Your task to perform on an android device: toggle priority inbox in the gmail app Image 0: 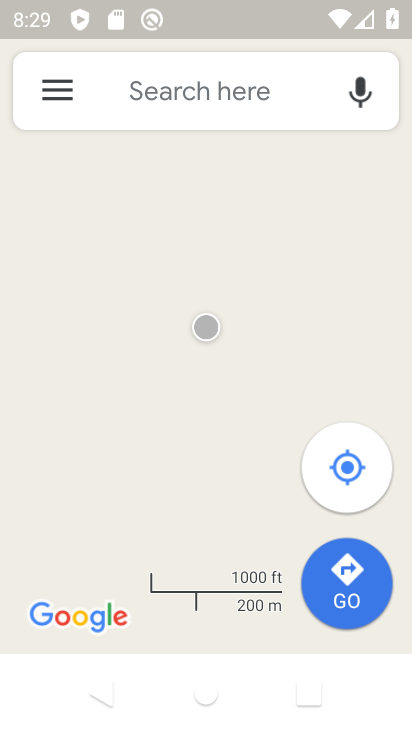
Step 0: press home button
Your task to perform on an android device: toggle priority inbox in the gmail app Image 1: 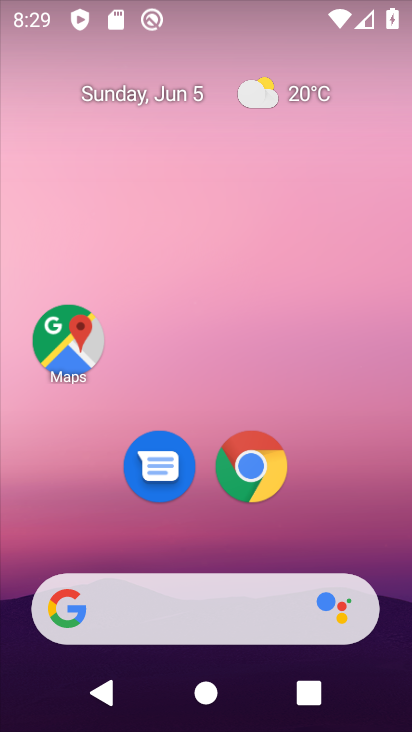
Step 1: drag from (206, 527) to (190, 122)
Your task to perform on an android device: toggle priority inbox in the gmail app Image 2: 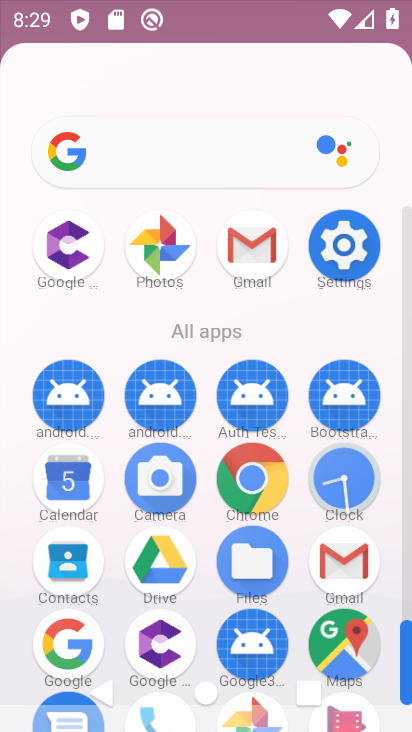
Step 2: click (250, 261)
Your task to perform on an android device: toggle priority inbox in the gmail app Image 3: 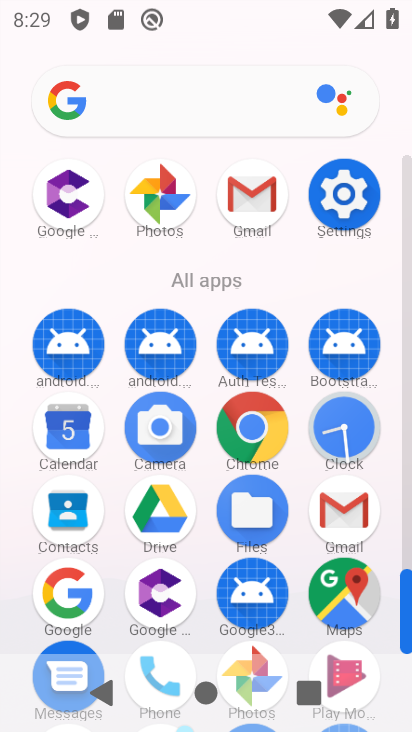
Step 3: click (256, 221)
Your task to perform on an android device: toggle priority inbox in the gmail app Image 4: 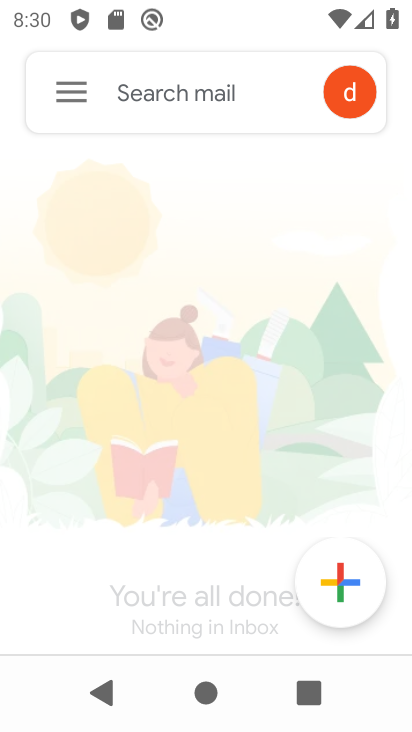
Step 4: click (67, 82)
Your task to perform on an android device: toggle priority inbox in the gmail app Image 5: 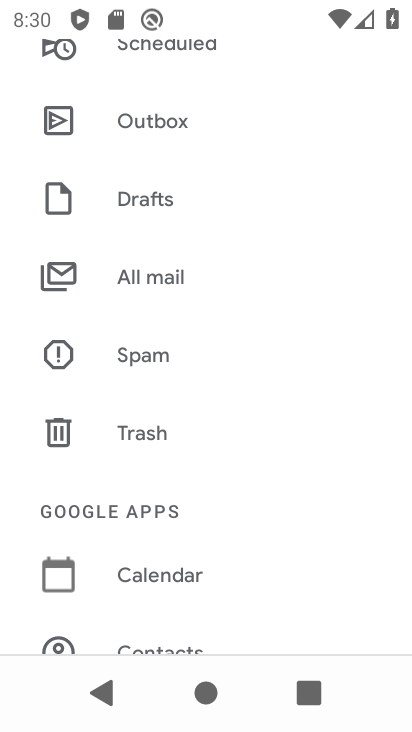
Step 5: drag from (186, 510) to (201, 178)
Your task to perform on an android device: toggle priority inbox in the gmail app Image 6: 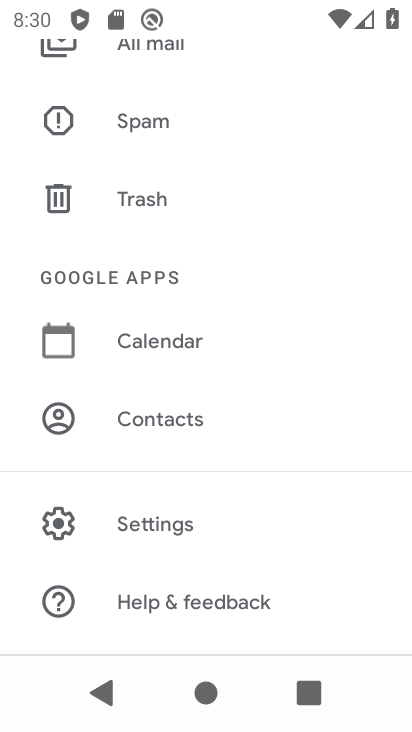
Step 6: click (133, 524)
Your task to perform on an android device: toggle priority inbox in the gmail app Image 7: 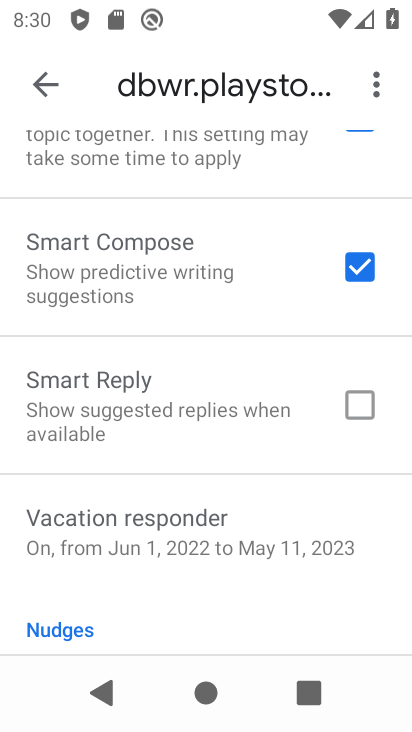
Step 7: drag from (237, 208) to (257, 638)
Your task to perform on an android device: toggle priority inbox in the gmail app Image 8: 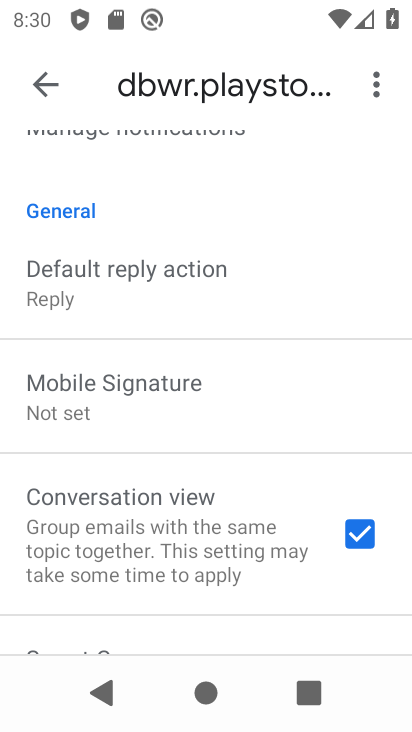
Step 8: drag from (168, 233) to (183, 563)
Your task to perform on an android device: toggle priority inbox in the gmail app Image 9: 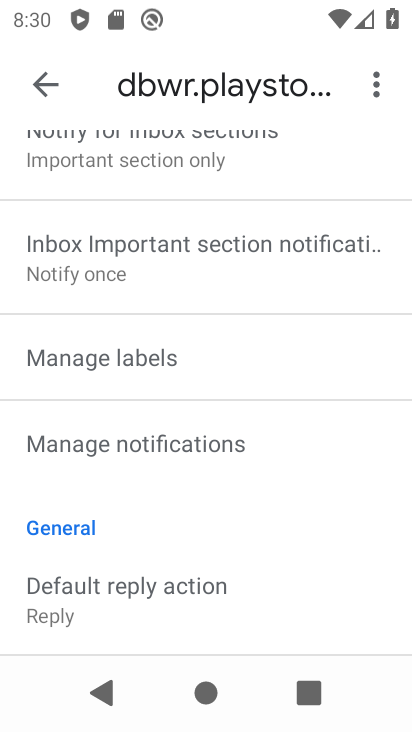
Step 9: drag from (168, 323) to (187, 627)
Your task to perform on an android device: toggle priority inbox in the gmail app Image 10: 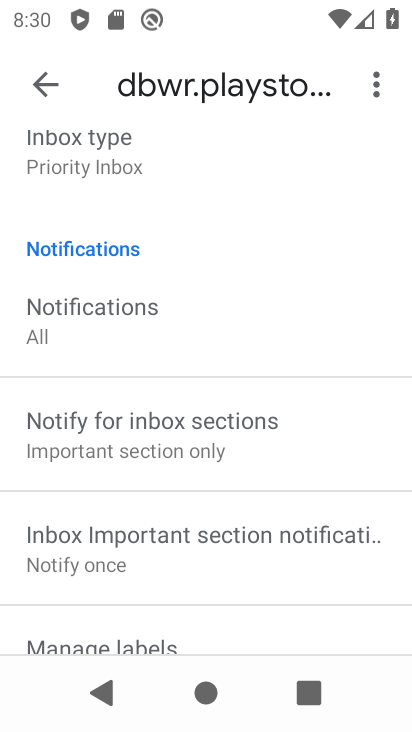
Step 10: drag from (138, 402) to (139, 657)
Your task to perform on an android device: toggle priority inbox in the gmail app Image 11: 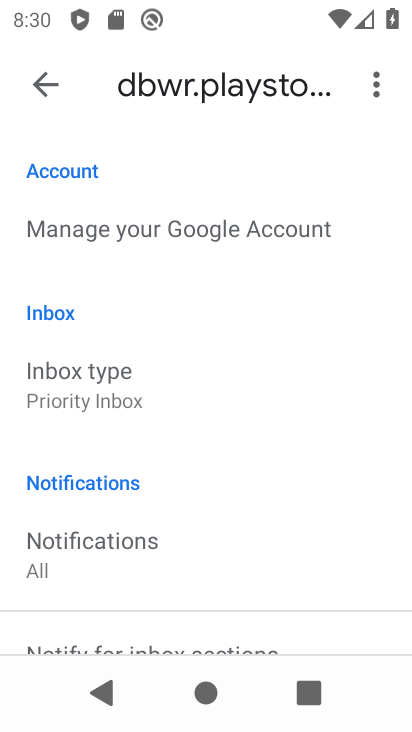
Step 11: click (31, 412)
Your task to perform on an android device: toggle priority inbox in the gmail app Image 12: 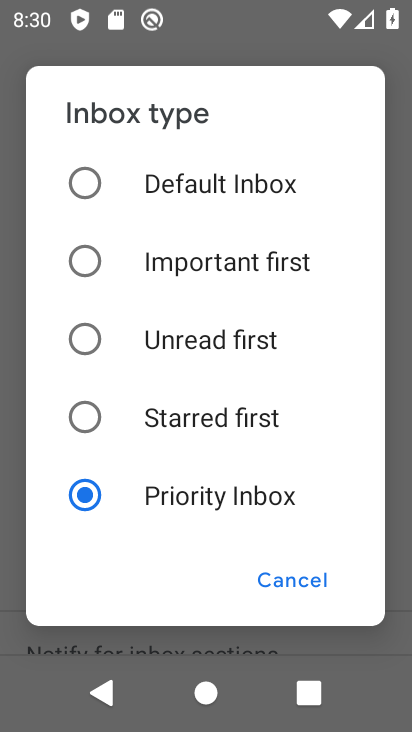
Step 12: click (96, 185)
Your task to perform on an android device: toggle priority inbox in the gmail app Image 13: 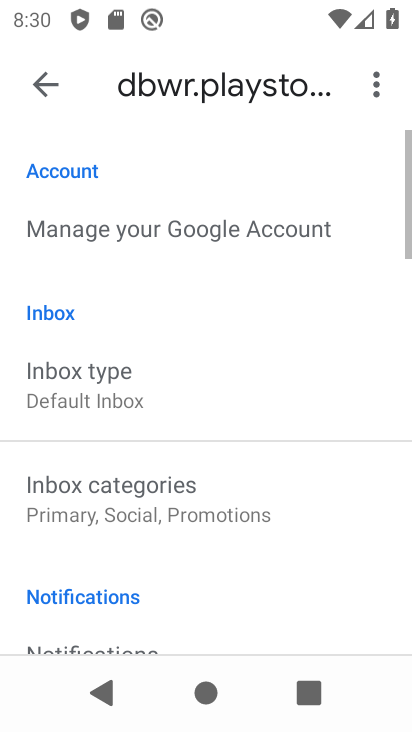
Step 13: task complete